Your task to perform on an android device: change notification settings in the gmail app Image 0: 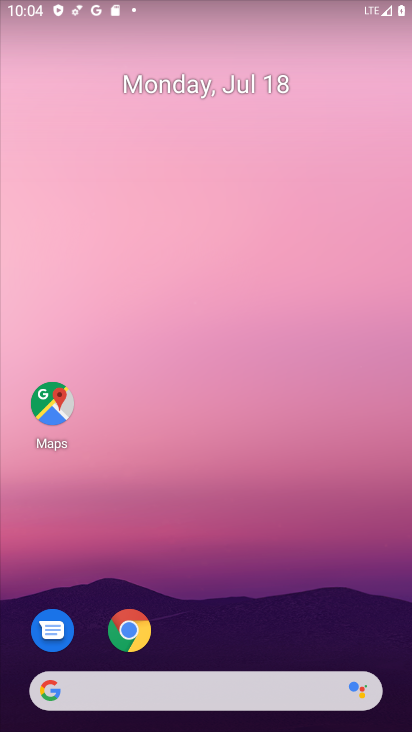
Step 0: drag from (328, 614) to (254, 228)
Your task to perform on an android device: change notification settings in the gmail app Image 1: 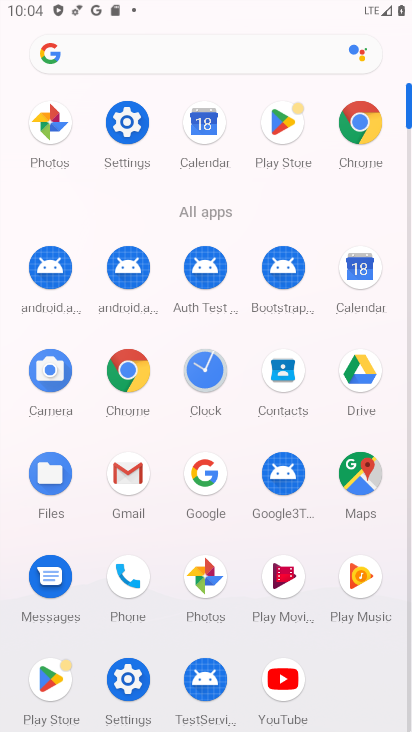
Step 1: click (124, 497)
Your task to perform on an android device: change notification settings in the gmail app Image 2: 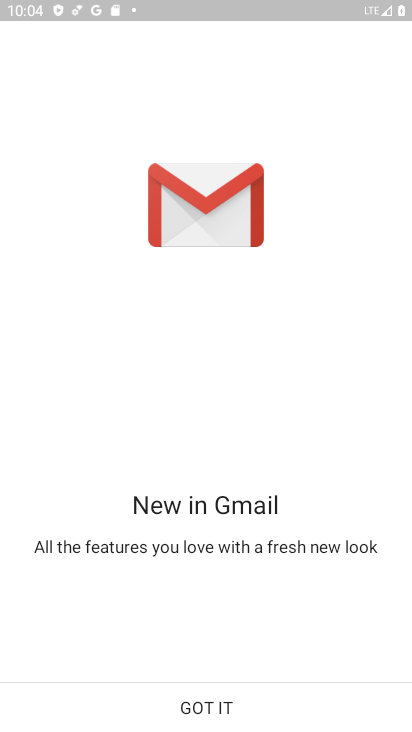
Step 2: click (201, 714)
Your task to perform on an android device: change notification settings in the gmail app Image 3: 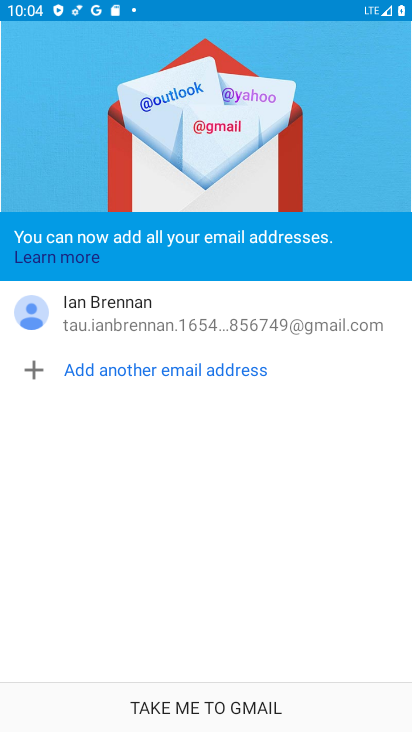
Step 3: click (201, 714)
Your task to perform on an android device: change notification settings in the gmail app Image 4: 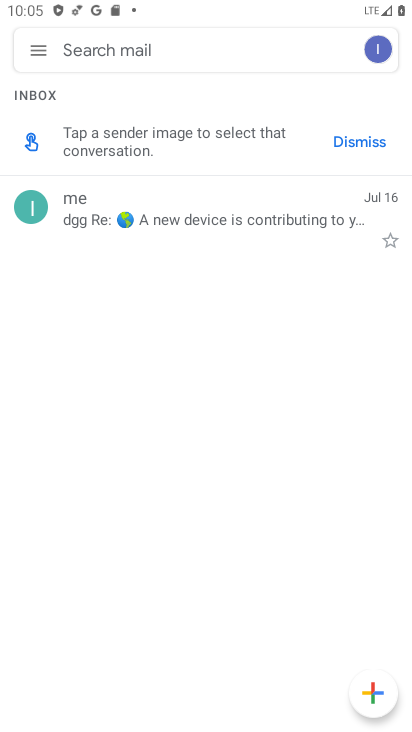
Step 4: click (42, 55)
Your task to perform on an android device: change notification settings in the gmail app Image 5: 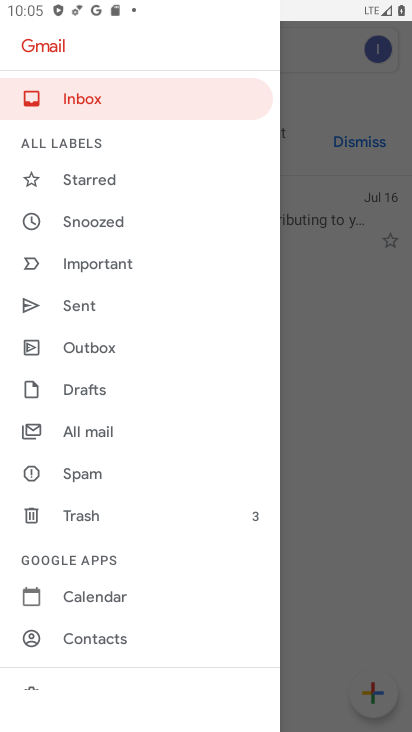
Step 5: drag from (146, 617) to (116, 311)
Your task to perform on an android device: change notification settings in the gmail app Image 6: 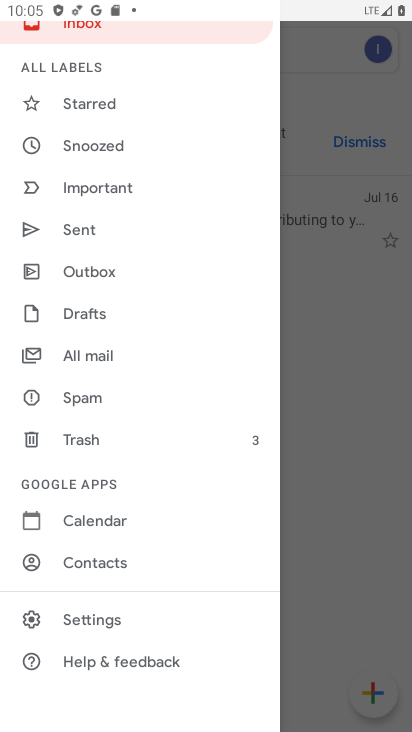
Step 6: click (101, 619)
Your task to perform on an android device: change notification settings in the gmail app Image 7: 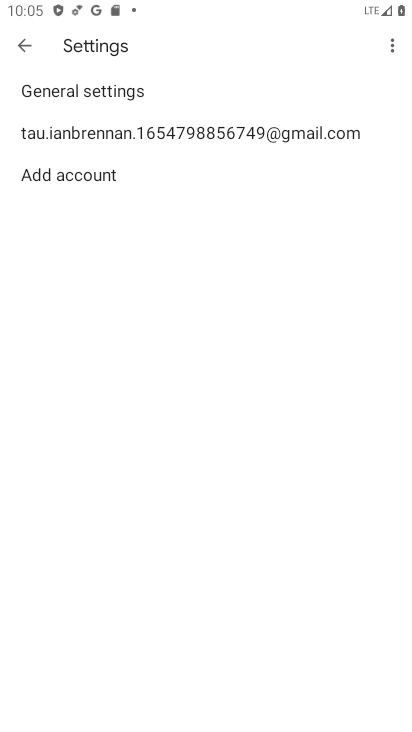
Step 7: click (255, 139)
Your task to perform on an android device: change notification settings in the gmail app Image 8: 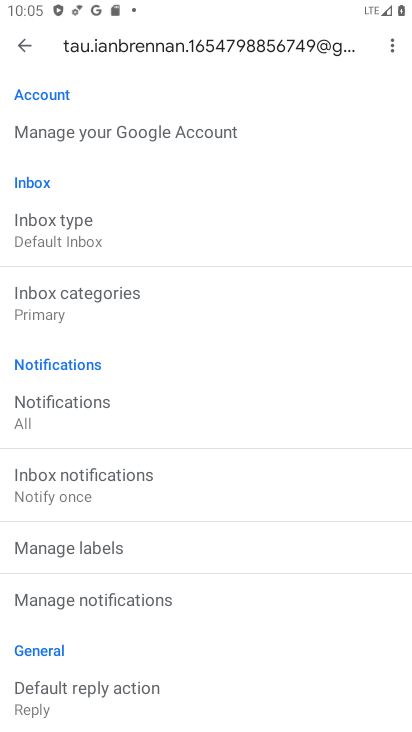
Step 8: click (135, 605)
Your task to perform on an android device: change notification settings in the gmail app Image 9: 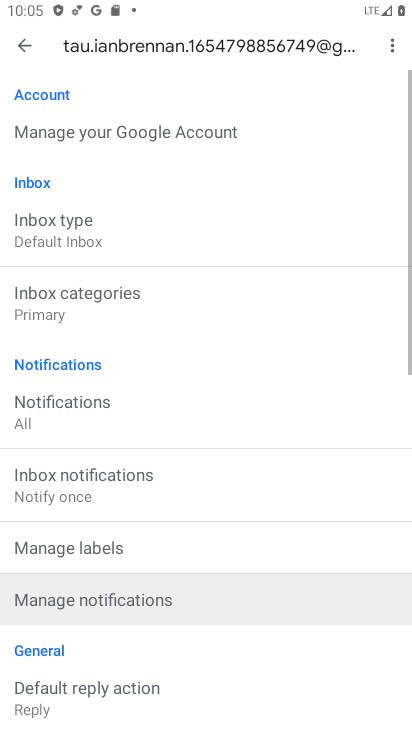
Step 9: click (135, 605)
Your task to perform on an android device: change notification settings in the gmail app Image 10: 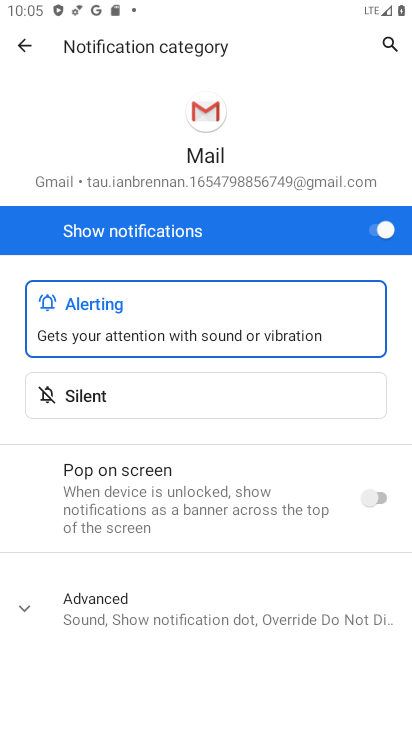
Step 10: click (212, 413)
Your task to perform on an android device: change notification settings in the gmail app Image 11: 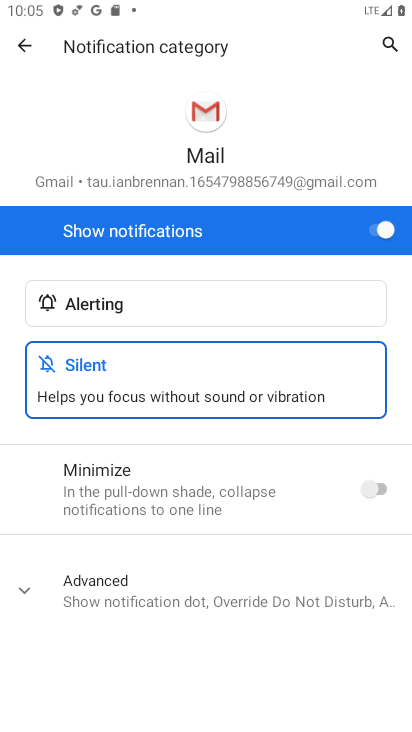
Step 11: click (382, 488)
Your task to perform on an android device: change notification settings in the gmail app Image 12: 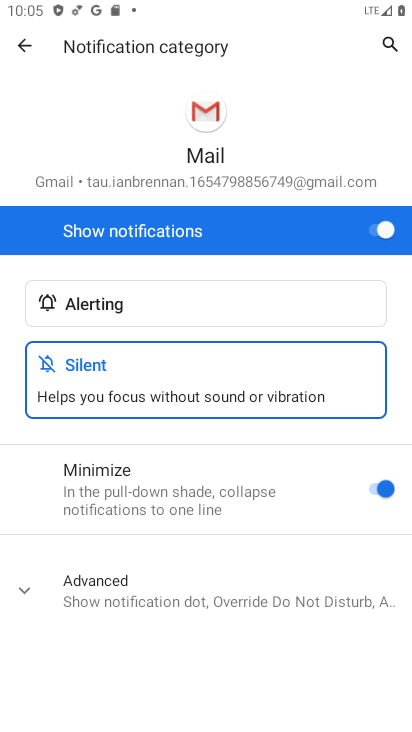
Step 12: task complete